Your task to perform on an android device: refresh tabs in the chrome app Image 0: 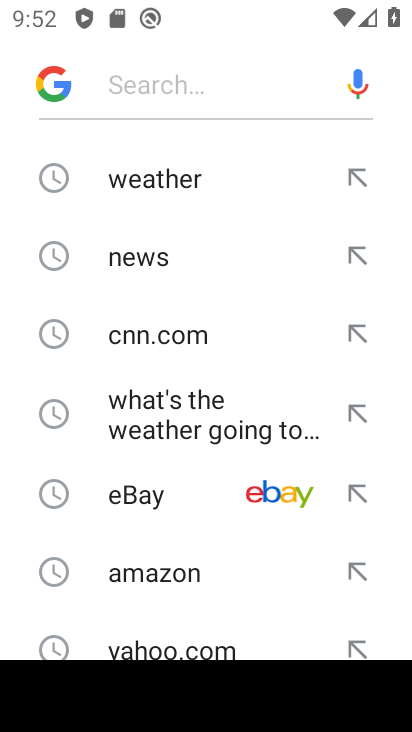
Step 0: press back button
Your task to perform on an android device: refresh tabs in the chrome app Image 1: 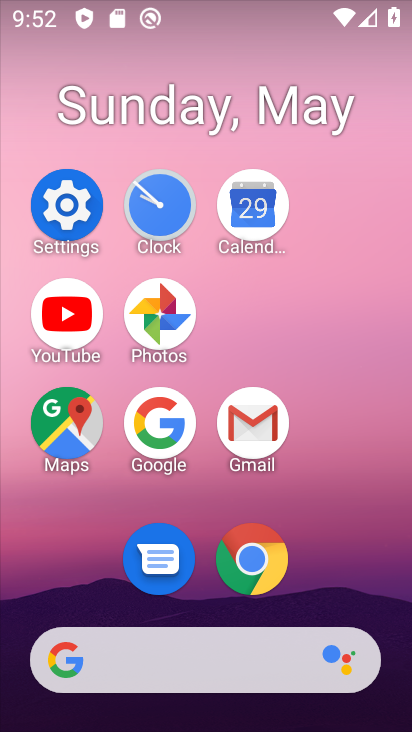
Step 1: click (254, 539)
Your task to perform on an android device: refresh tabs in the chrome app Image 2: 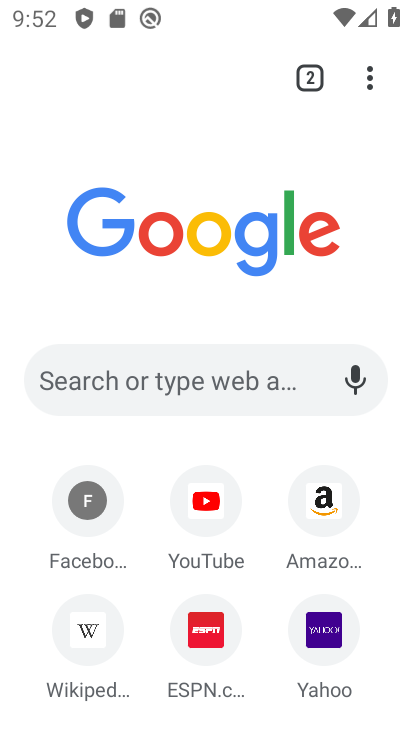
Step 2: click (380, 73)
Your task to perform on an android device: refresh tabs in the chrome app Image 3: 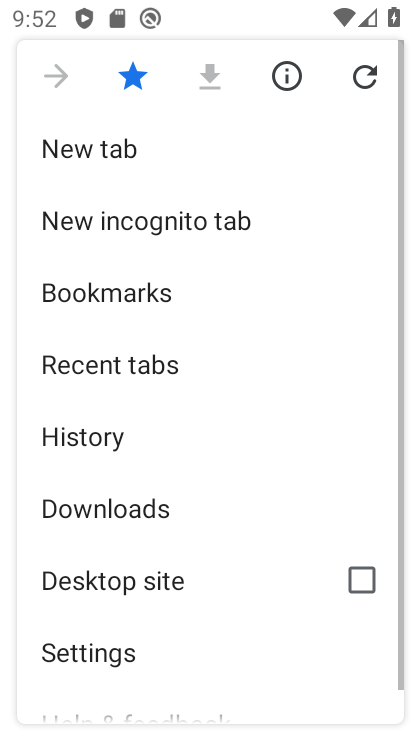
Step 3: click (367, 70)
Your task to perform on an android device: refresh tabs in the chrome app Image 4: 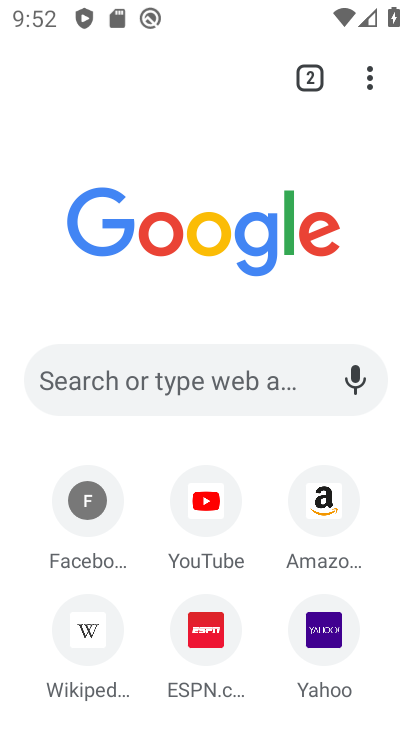
Step 4: task complete